Your task to perform on an android device: delete a single message in the gmail app Image 0: 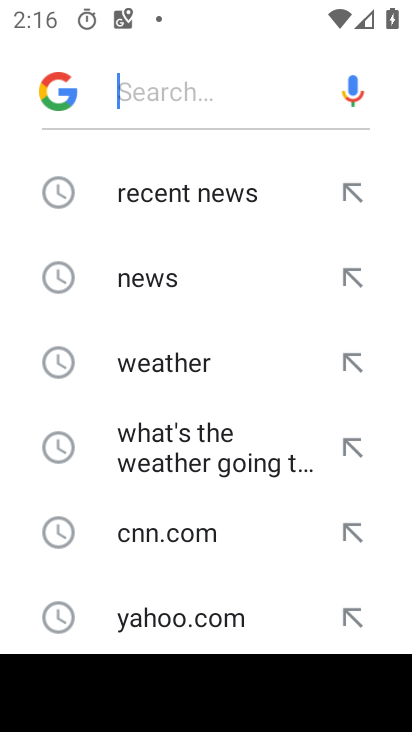
Step 0: press home button
Your task to perform on an android device: delete a single message in the gmail app Image 1: 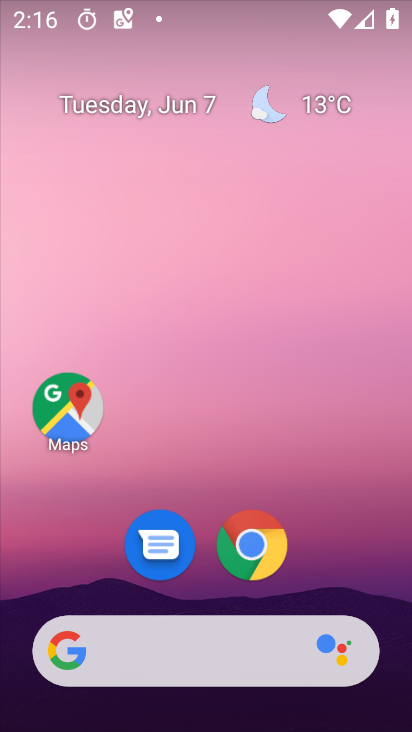
Step 1: drag from (351, 578) to (230, 54)
Your task to perform on an android device: delete a single message in the gmail app Image 2: 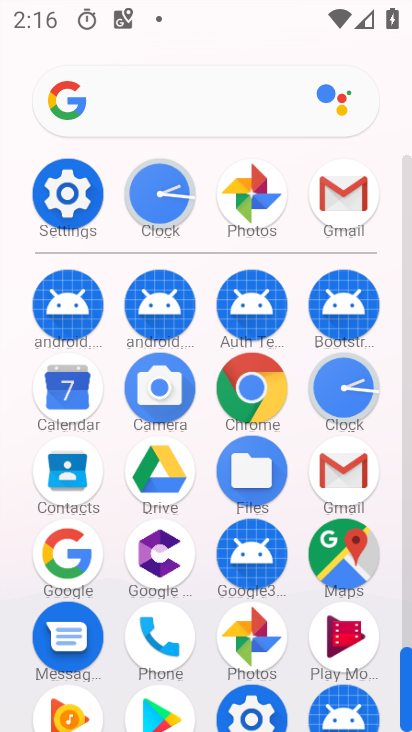
Step 2: click (347, 470)
Your task to perform on an android device: delete a single message in the gmail app Image 3: 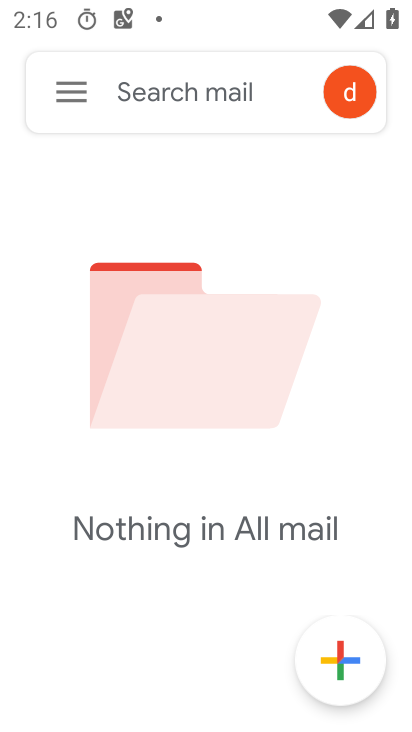
Step 3: click (76, 95)
Your task to perform on an android device: delete a single message in the gmail app Image 4: 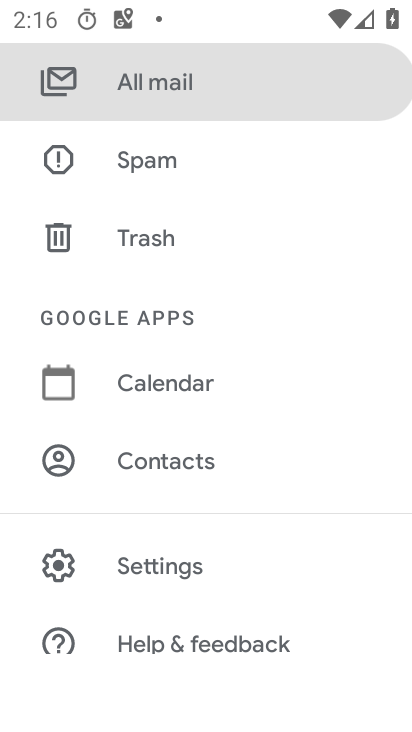
Step 4: click (225, 94)
Your task to perform on an android device: delete a single message in the gmail app Image 5: 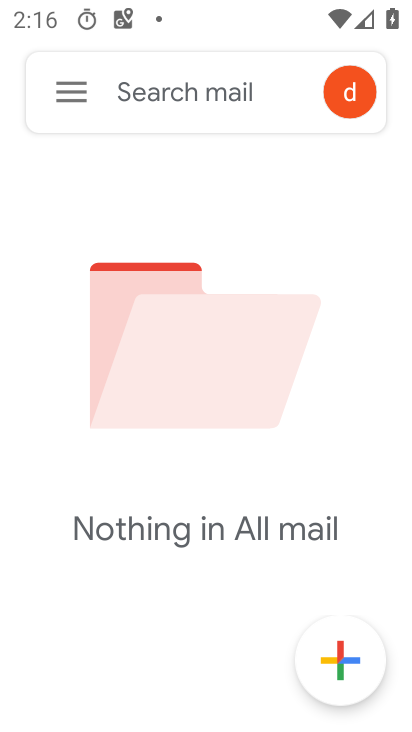
Step 5: task complete